Your task to perform on an android device: open a new tab in the chrome app Image 0: 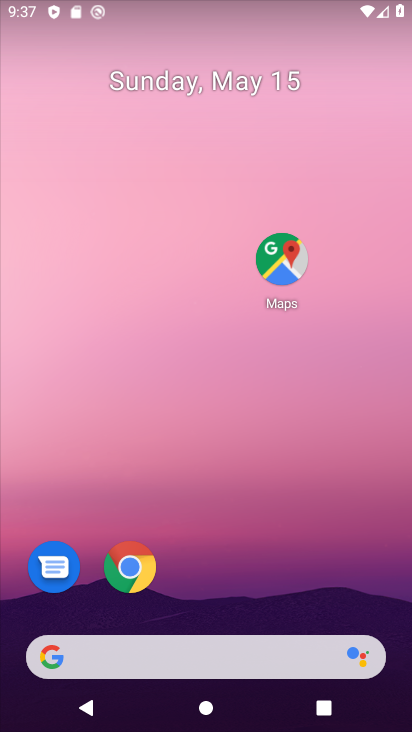
Step 0: click (131, 569)
Your task to perform on an android device: open a new tab in the chrome app Image 1: 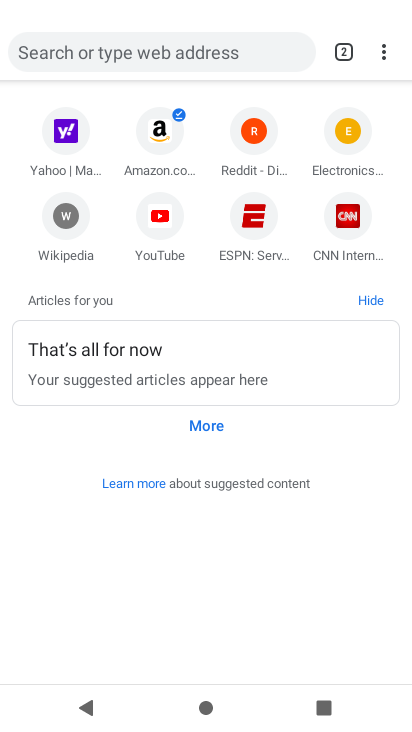
Step 1: click (347, 50)
Your task to perform on an android device: open a new tab in the chrome app Image 2: 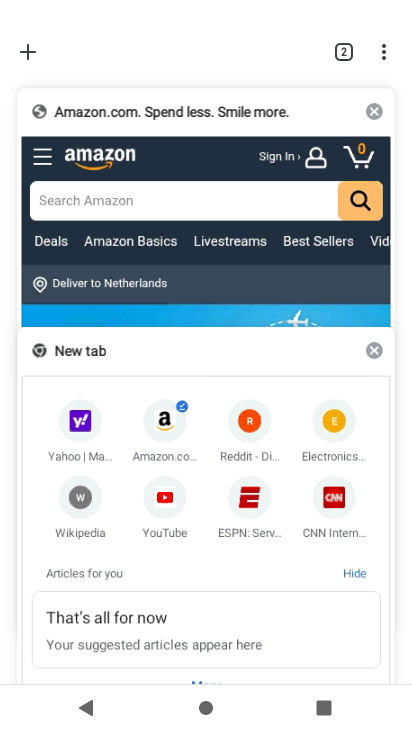
Step 2: click (28, 48)
Your task to perform on an android device: open a new tab in the chrome app Image 3: 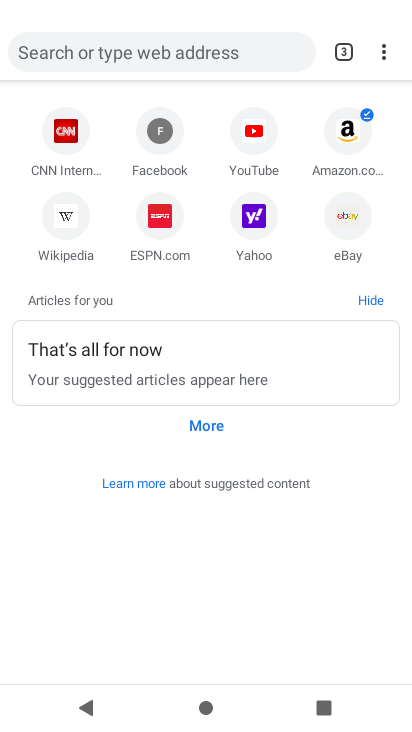
Step 3: task complete